Your task to perform on an android device: check storage Image 0: 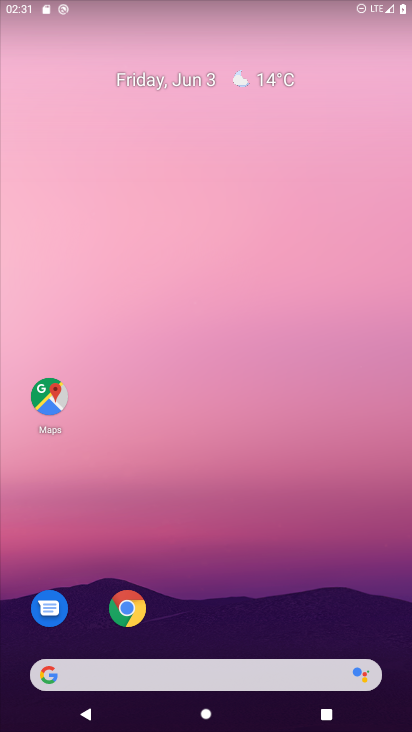
Step 0: drag from (286, 545) to (270, 166)
Your task to perform on an android device: check storage Image 1: 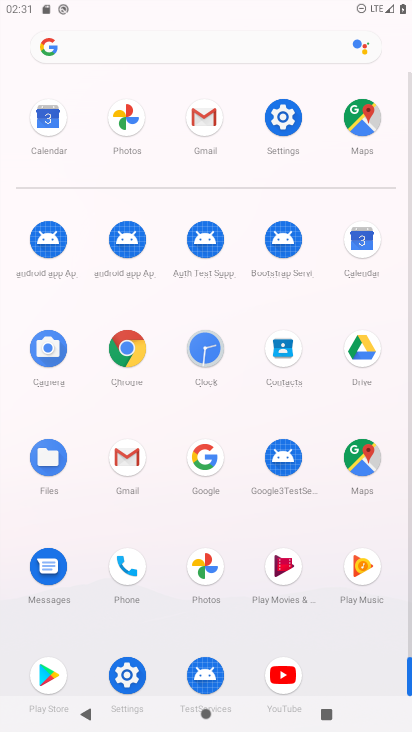
Step 1: click (290, 111)
Your task to perform on an android device: check storage Image 2: 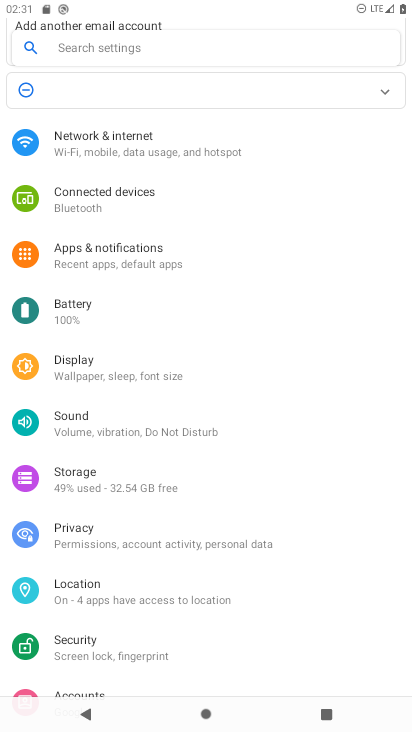
Step 2: click (88, 465)
Your task to perform on an android device: check storage Image 3: 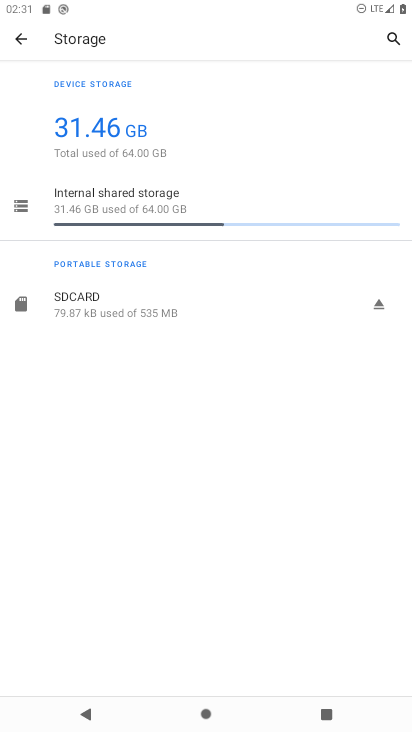
Step 3: task complete